Your task to perform on an android device: set an alarm Image 0: 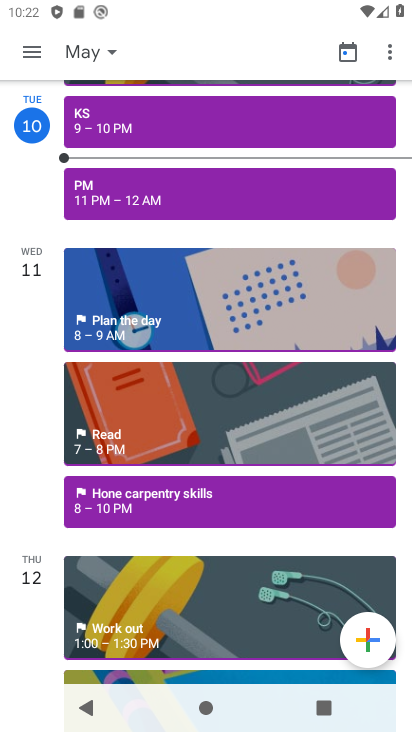
Step 0: press home button
Your task to perform on an android device: set an alarm Image 1: 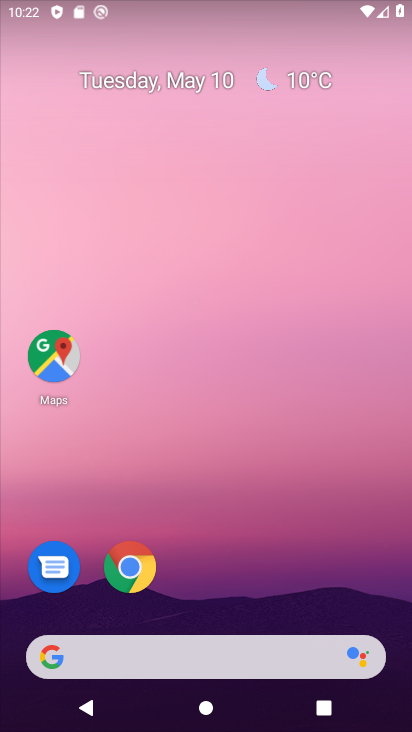
Step 1: drag from (278, 622) to (283, 66)
Your task to perform on an android device: set an alarm Image 2: 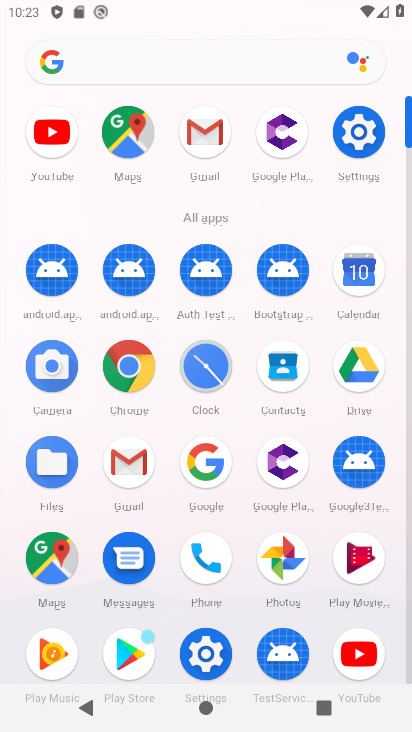
Step 2: click (201, 370)
Your task to perform on an android device: set an alarm Image 3: 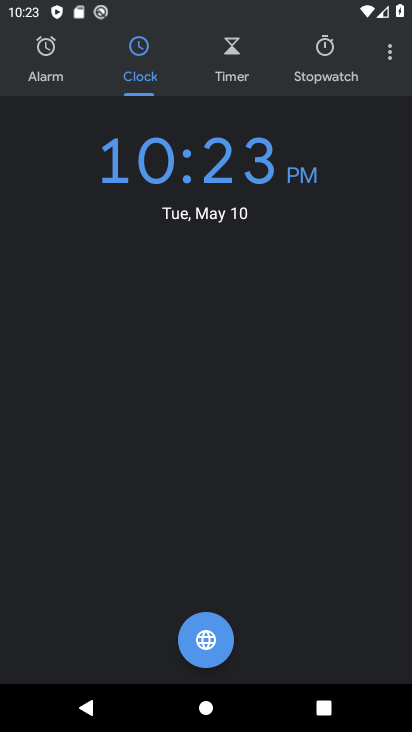
Step 3: click (55, 72)
Your task to perform on an android device: set an alarm Image 4: 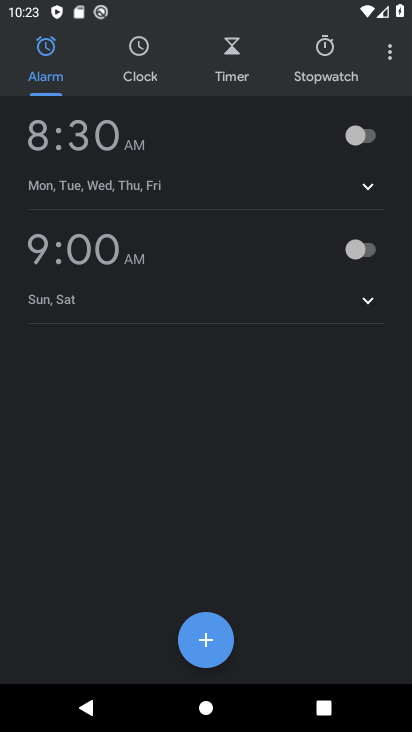
Step 4: click (212, 655)
Your task to perform on an android device: set an alarm Image 5: 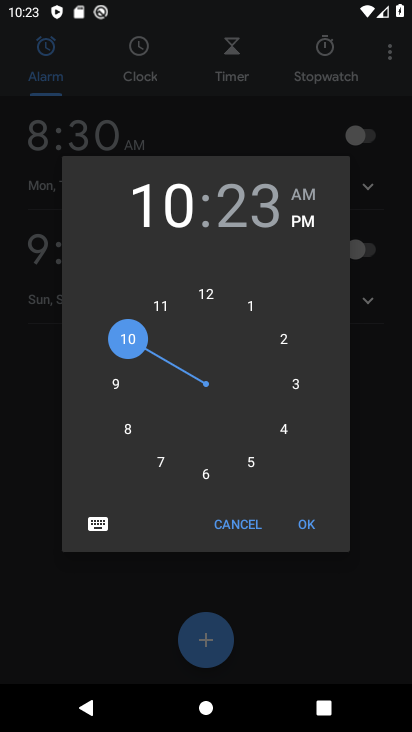
Step 5: click (211, 481)
Your task to perform on an android device: set an alarm Image 6: 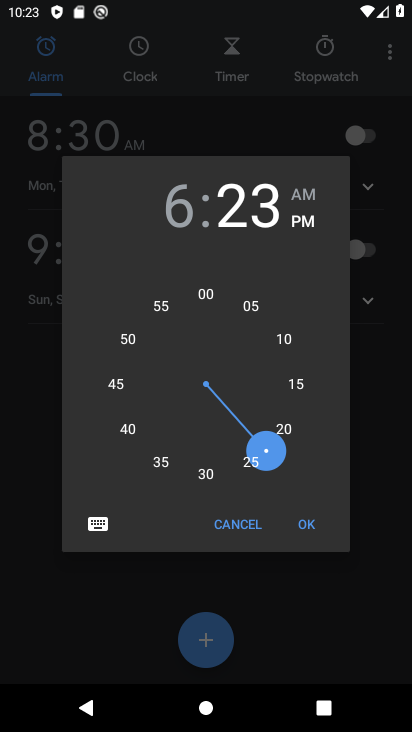
Step 6: click (205, 296)
Your task to perform on an android device: set an alarm Image 7: 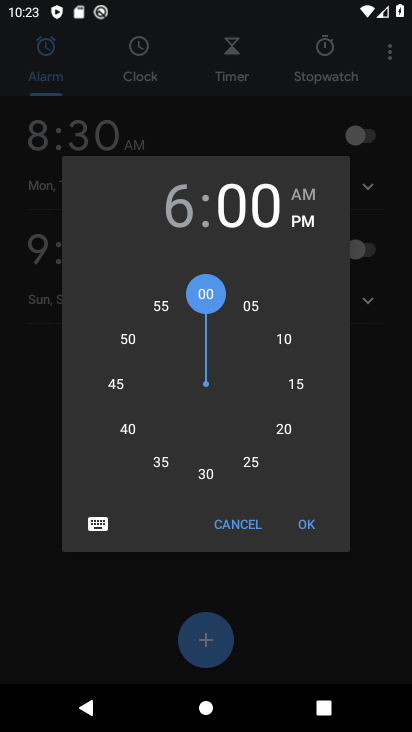
Step 7: click (300, 535)
Your task to perform on an android device: set an alarm Image 8: 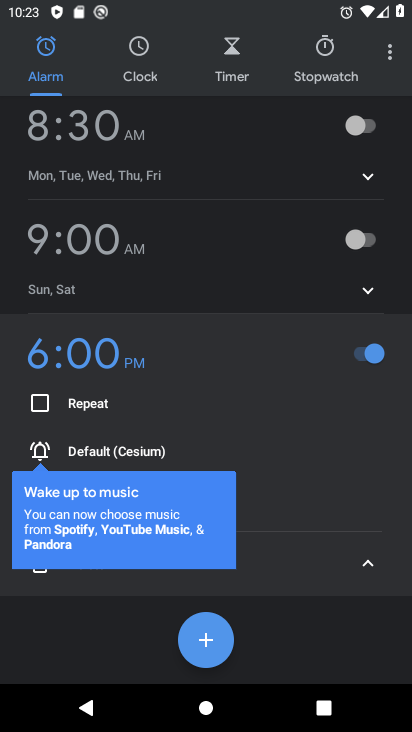
Step 8: task complete